Your task to perform on an android device: Open accessibility settings Image 0: 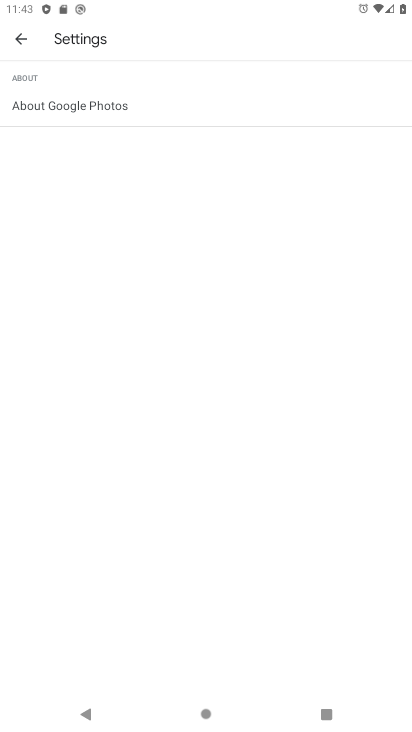
Step 0: press home button
Your task to perform on an android device: Open accessibility settings Image 1: 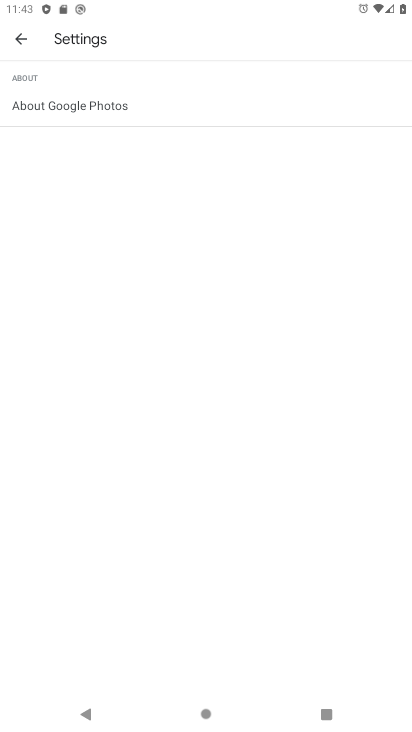
Step 1: press home button
Your task to perform on an android device: Open accessibility settings Image 2: 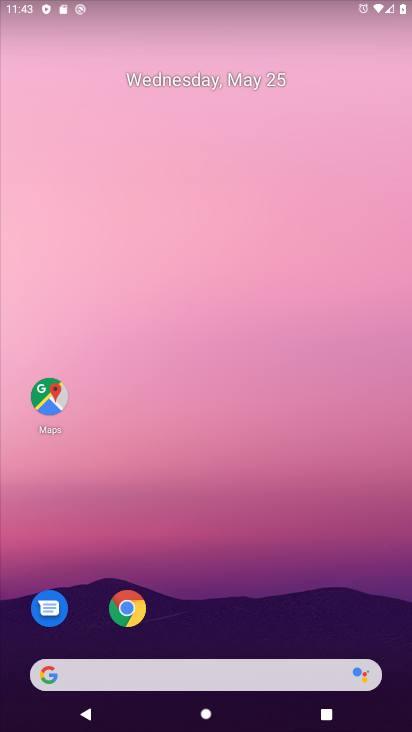
Step 2: drag from (229, 719) to (220, 75)
Your task to perform on an android device: Open accessibility settings Image 3: 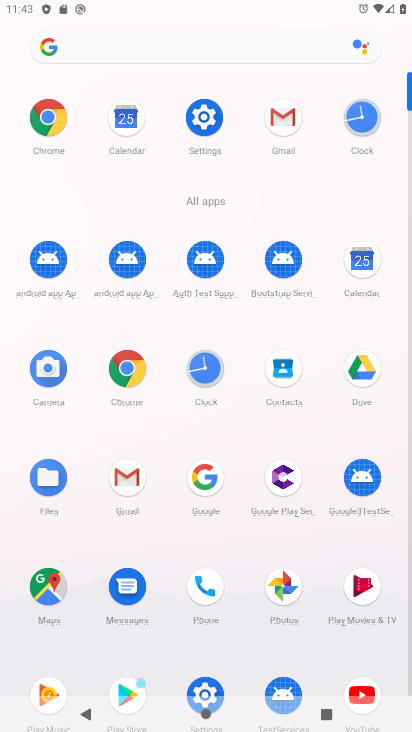
Step 3: click (200, 119)
Your task to perform on an android device: Open accessibility settings Image 4: 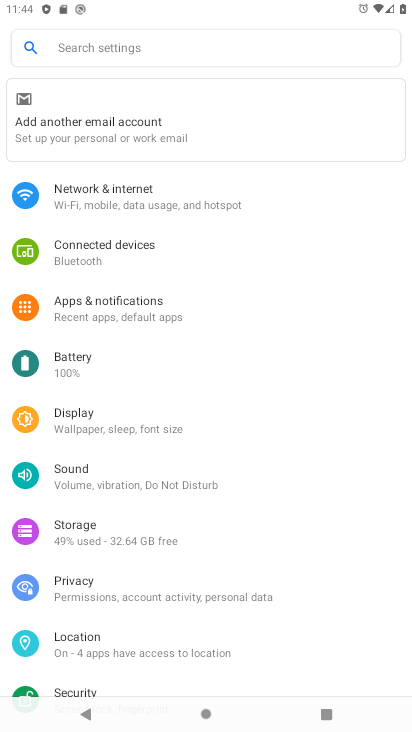
Step 4: drag from (122, 647) to (124, 187)
Your task to perform on an android device: Open accessibility settings Image 5: 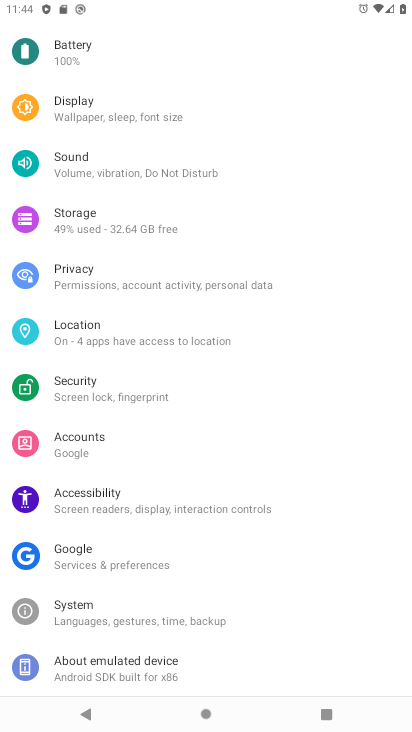
Step 5: drag from (124, 631) to (138, 303)
Your task to perform on an android device: Open accessibility settings Image 6: 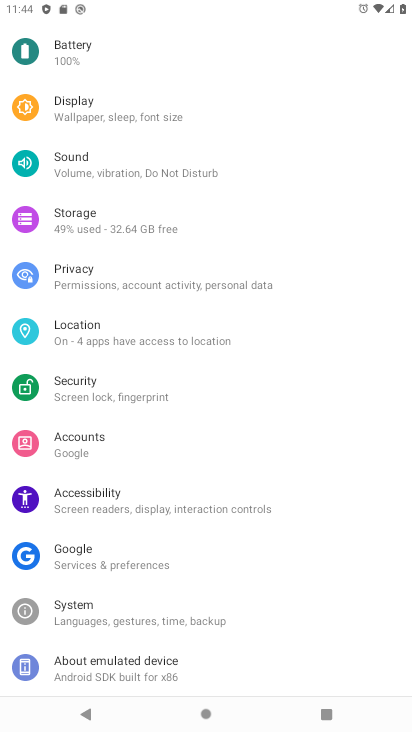
Step 6: click (95, 496)
Your task to perform on an android device: Open accessibility settings Image 7: 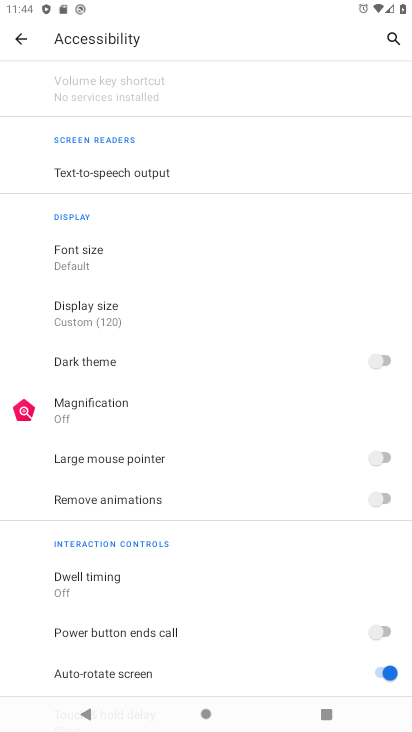
Step 7: task complete